Your task to perform on an android device: turn off data saver in the chrome app Image 0: 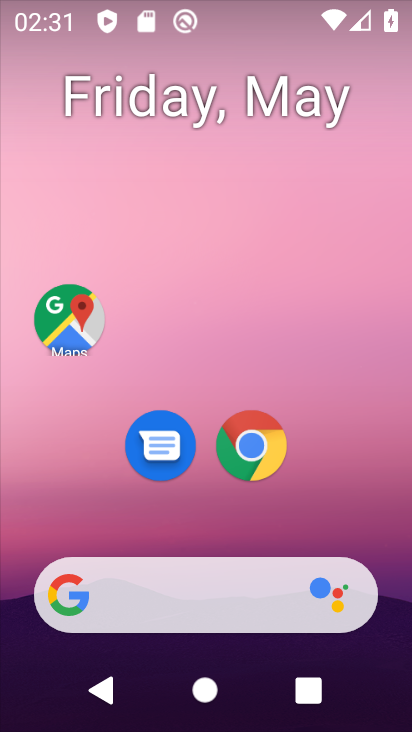
Step 0: click (261, 464)
Your task to perform on an android device: turn off data saver in the chrome app Image 1: 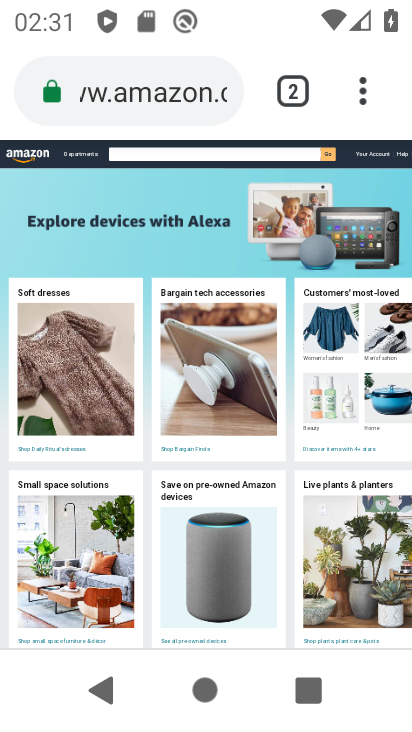
Step 1: drag from (378, 87) to (270, 497)
Your task to perform on an android device: turn off data saver in the chrome app Image 2: 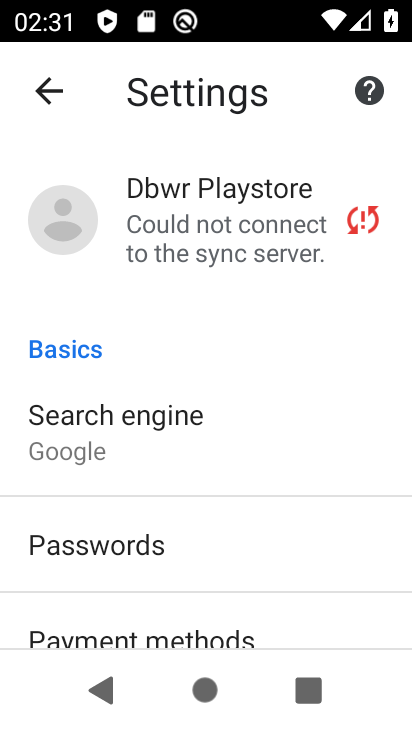
Step 2: drag from (229, 409) to (282, 205)
Your task to perform on an android device: turn off data saver in the chrome app Image 3: 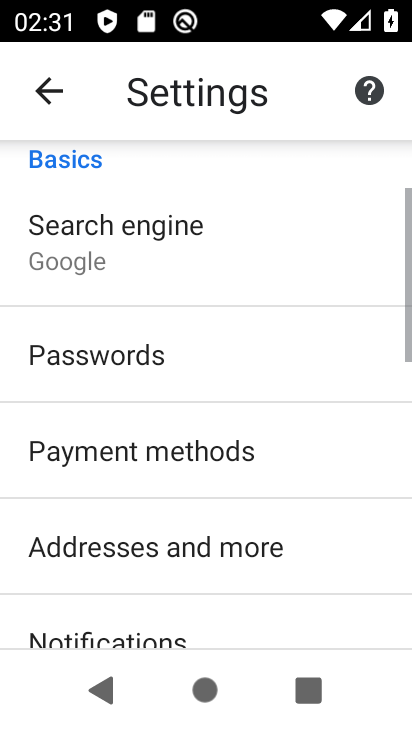
Step 3: drag from (215, 536) to (294, 214)
Your task to perform on an android device: turn off data saver in the chrome app Image 4: 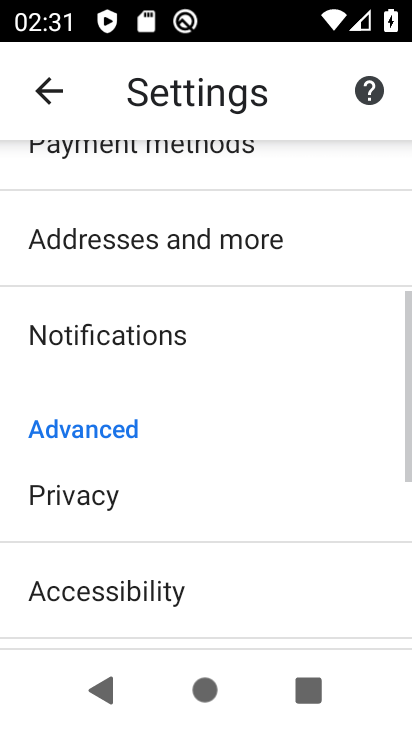
Step 4: drag from (221, 457) to (283, 174)
Your task to perform on an android device: turn off data saver in the chrome app Image 5: 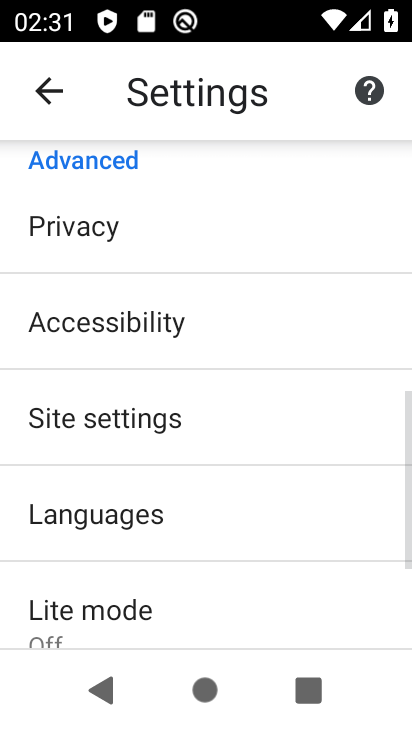
Step 5: drag from (190, 571) to (253, 318)
Your task to perform on an android device: turn off data saver in the chrome app Image 6: 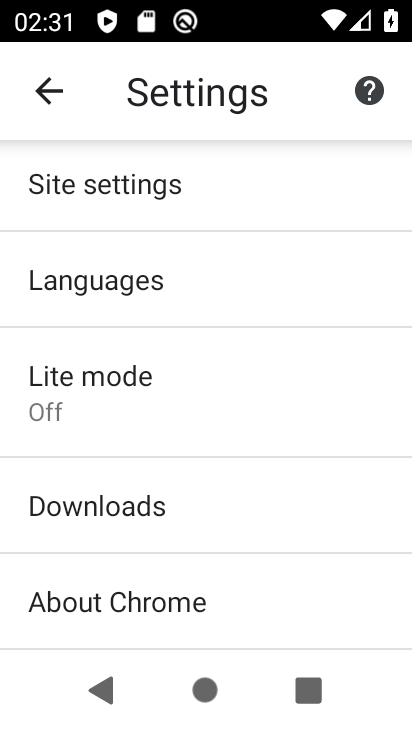
Step 6: click (188, 384)
Your task to perform on an android device: turn off data saver in the chrome app Image 7: 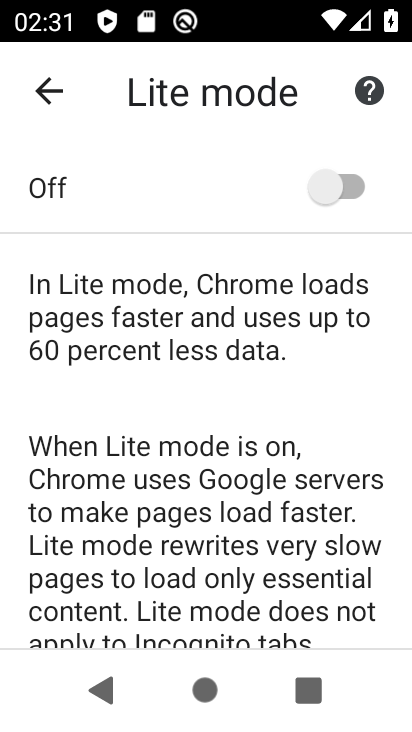
Step 7: task complete